Your task to perform on an android device: Open calendar and show me the first week of next month Image 0: 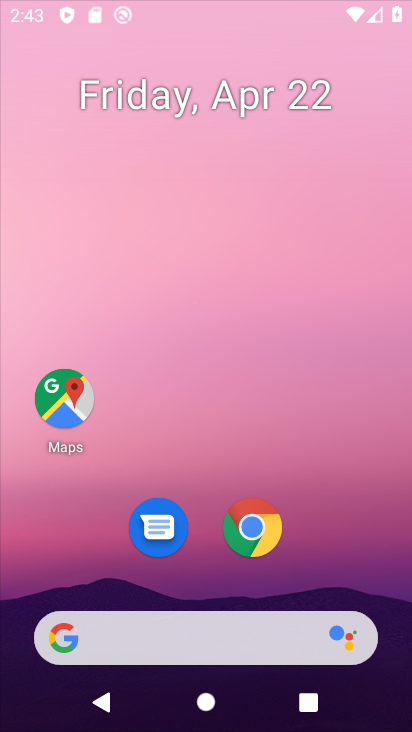
Step 0: drag from (306, 320) to (226, 32)
Your task to perform on an android device: Open calendar and show me the first week of next month Image 1: 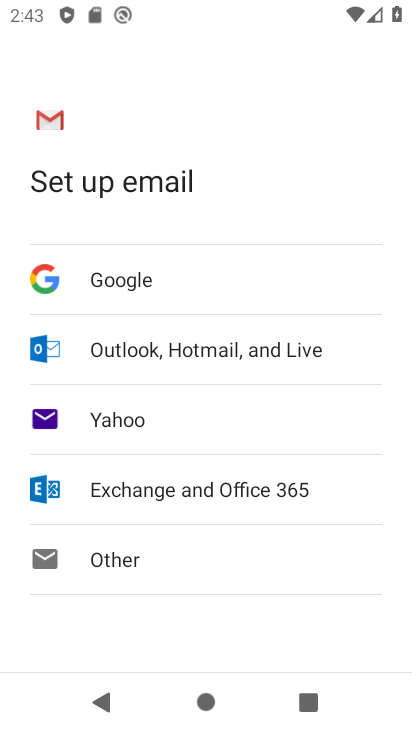
Step 1: press home button
Your task to perform on an android device: Open calendar and show me the first week of next month Image 2: 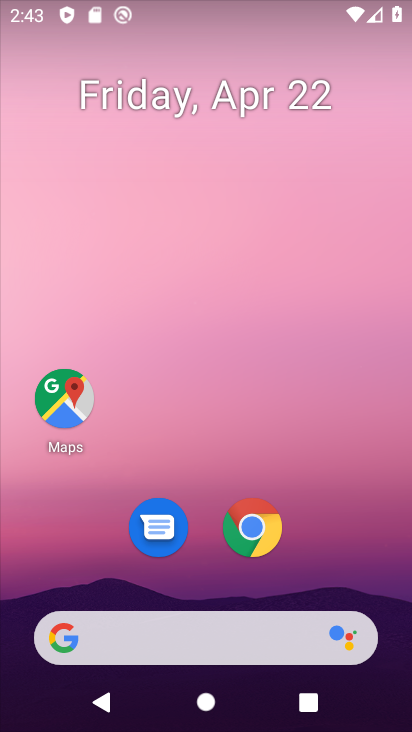
Step 2: drag from (390, 614) to (293, 69)
Your task to perform on an android device: Open calendar and show me the first week of next month Image 3: 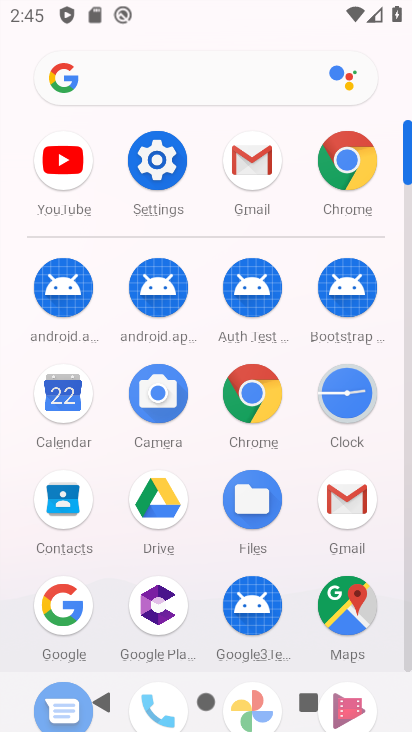
Step 3: click (71, 402)
Your task to perform on an android device: Open calendar and show me the first week of next month Image 4: 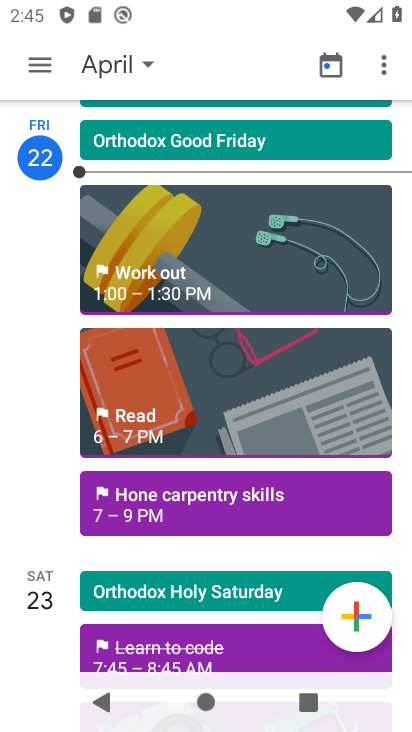
Step 4: click (85, 79)
Your task to perform on an android device: Open calendar and show me the first week of next month Image 5: 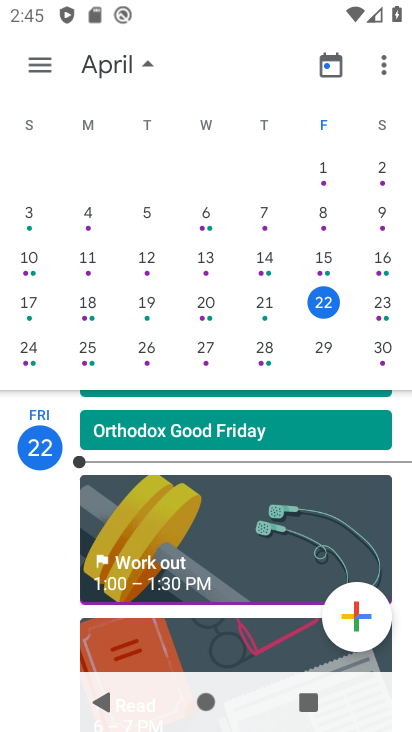
Step 5: drag from (339, 271) to (36, 226)
Your task to perform on an android device: Open calendar and show me the first week of next month Image 6: 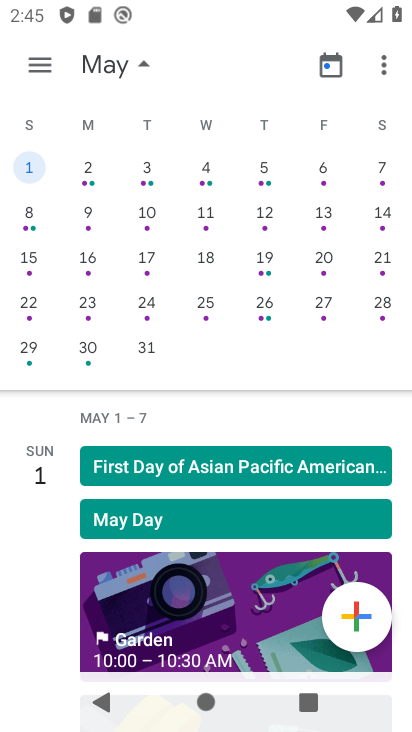
Step 6: click (78, 167)
Your task to perform on an android device: Open calendar and show me the first week of next month Image 7: 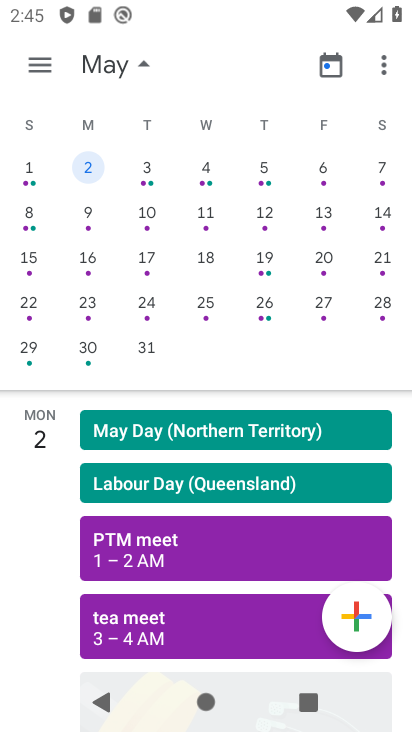
Step 7: task complete